Your task to perform on an android device: Open CNN.com Image 0: 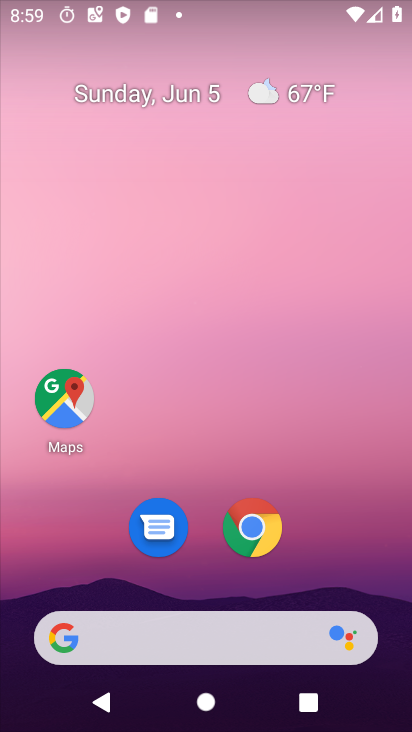
Step 0: click (254, 527)
Your task to perform on an android device: Open CNN.com Image 1: 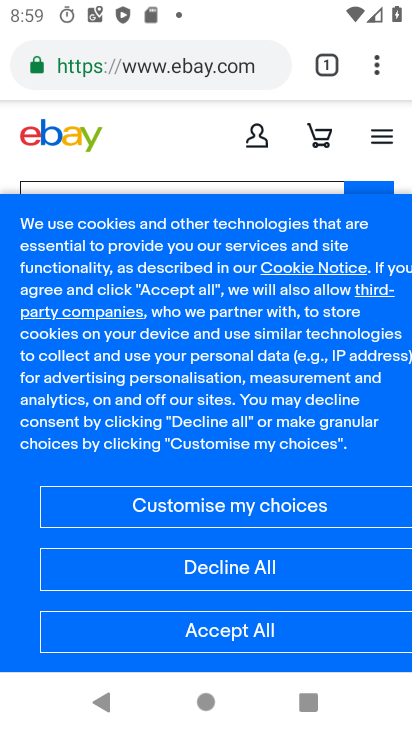
Step 1: click (378, 75)
Your task to perform on an android device: Open CNN.com Image 2: 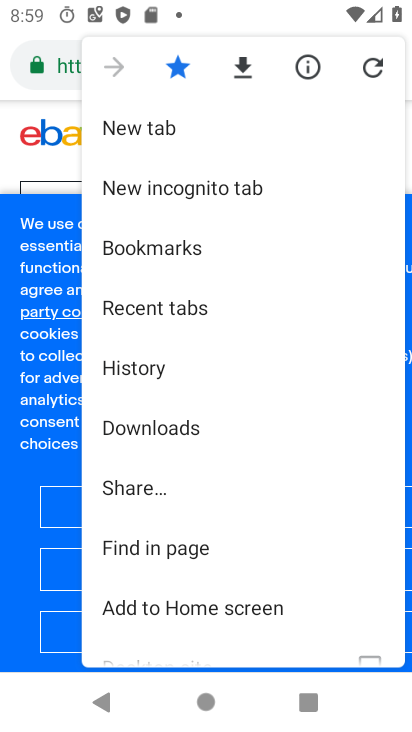
Step 2: click (155, 126)
Your task to perform on an android device: Open CNN.com Image 3: 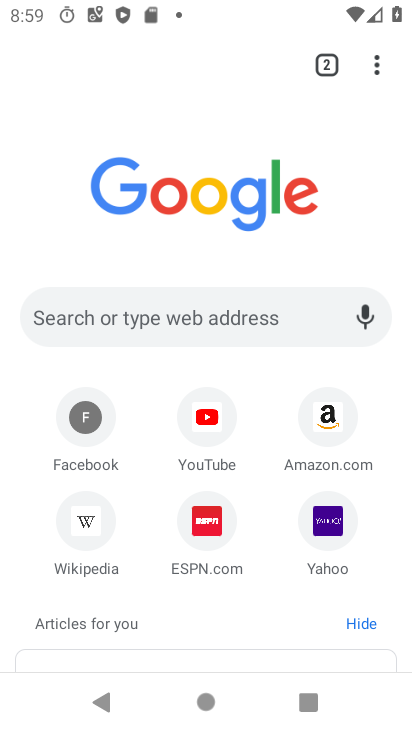
Step 3: click (191, 306)
Your task to perform on an android device: Open CNN.com Image 4: 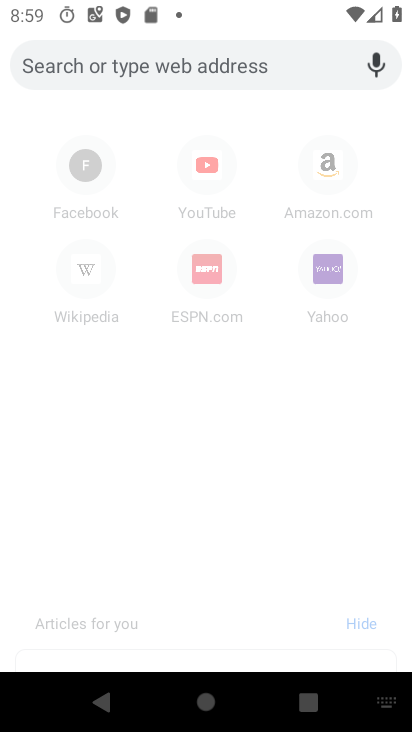
Step 4: type "CNN.com"
Your task to perform on an android device: Open CNN.com Image 5: 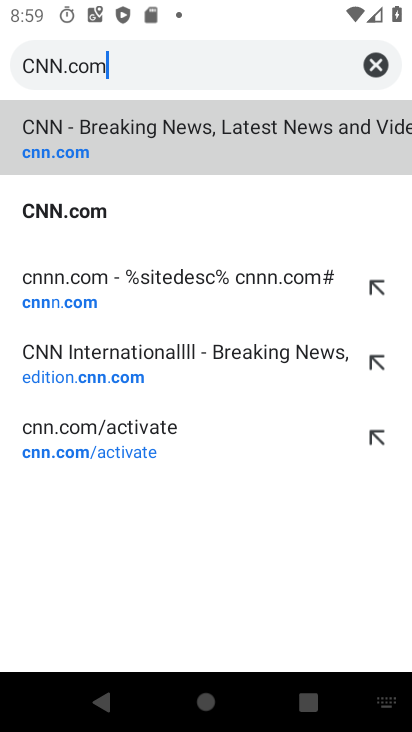
Step 5: click (192, 133)
Your task to perform on an android device: Open CNN.com Image 6: 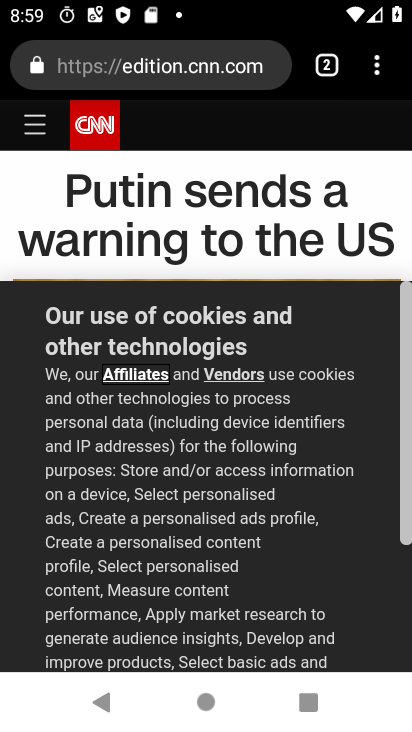
Step 6: task complete